Your task to perform on an android device: Open my contact list Image 0: 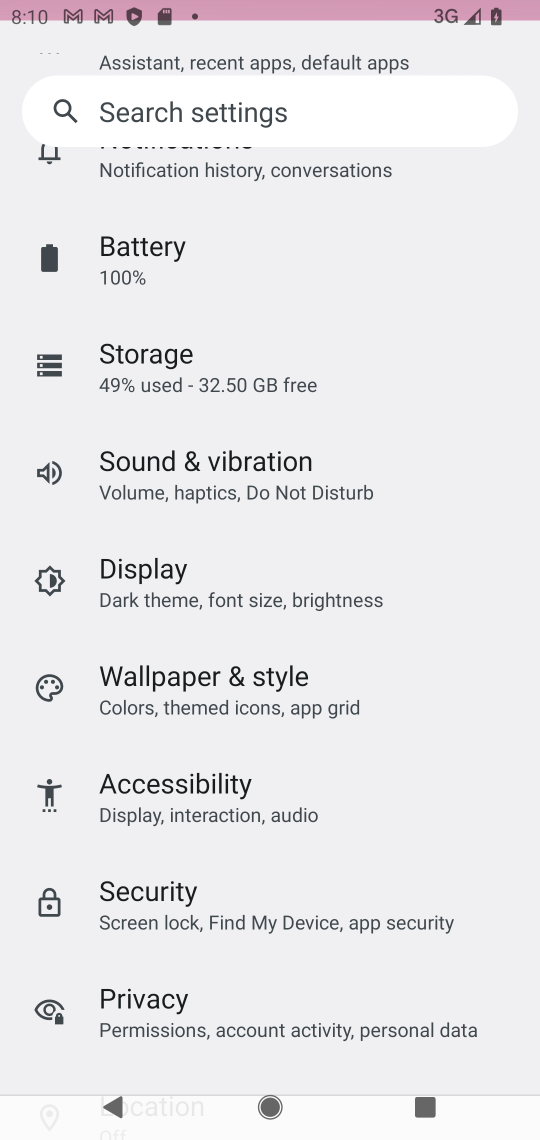
Step 0: press home button
Your task to perform on an android device: Open my contact list Image 1: 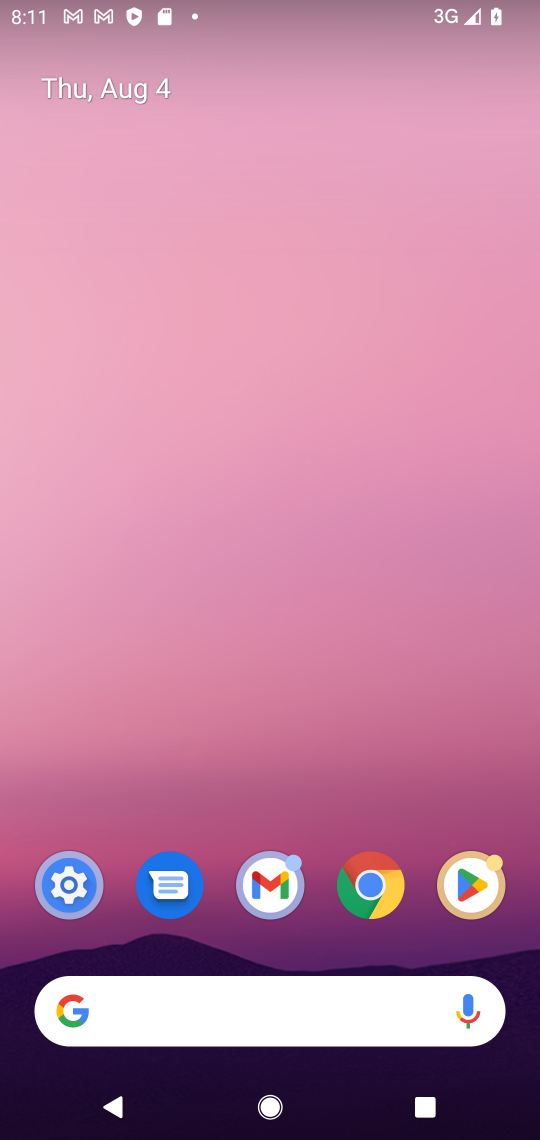
Step 1: drag from (418, 948) to (256, 46)
Your task to perform on an android device: Open my contact list Image 2: 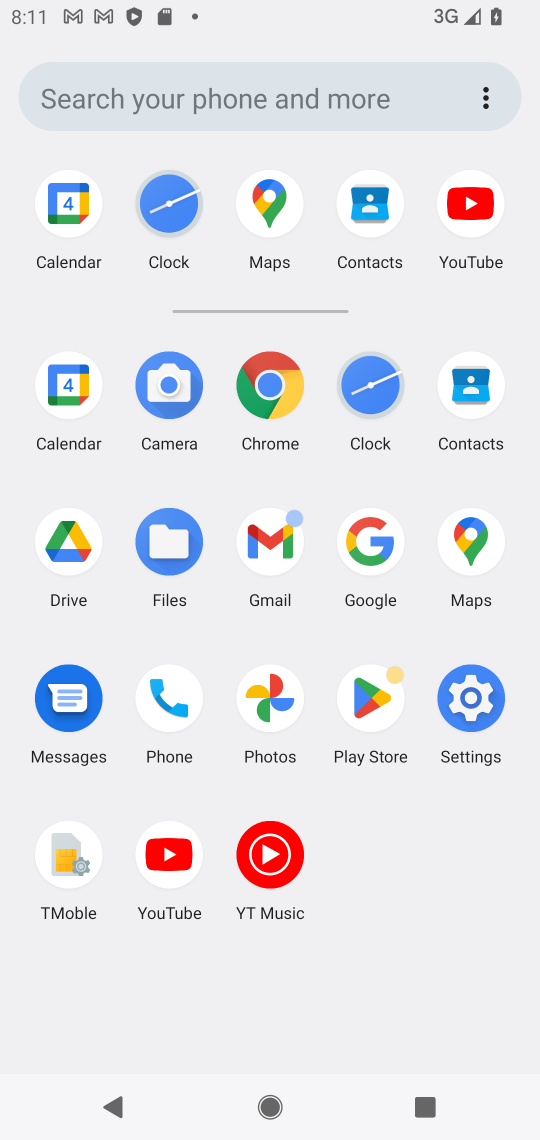
Step 2: click (441, 398)
Your task to perform on an android device: Open my contact list Image 3: 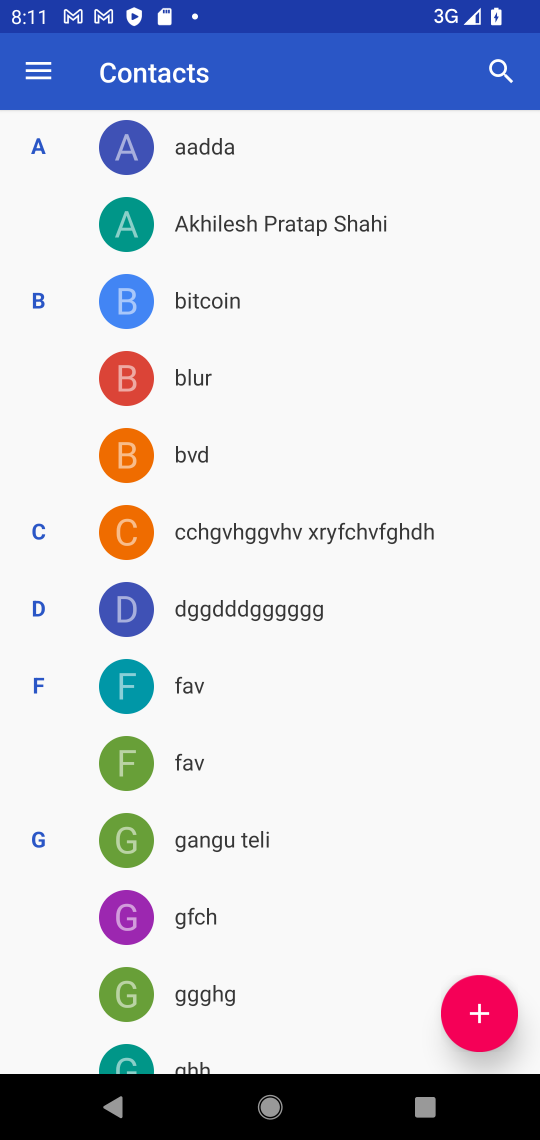
Step 3: task complete